Your task to perform on an android device: What's on my calendar tomorrow? Image 0: 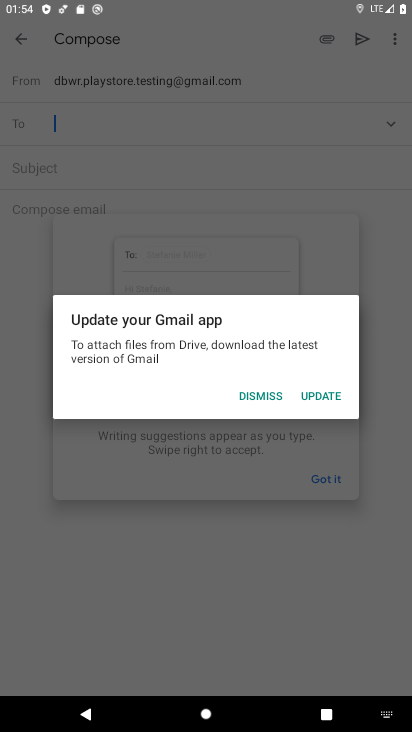
Step 0: press home button
Your task to perform on an android device: What's on my calendar tomorrow? Image 1: 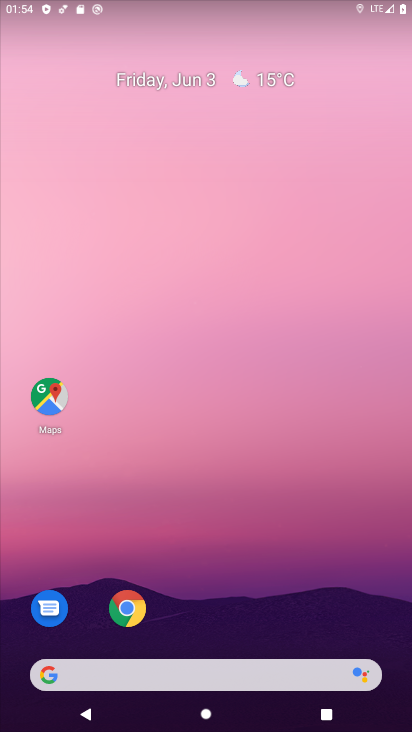
Step 1: drag from (256, 553) to (207, 127)
Your task to perform on an android device: What's on my calendar tomorrow? Image 2: 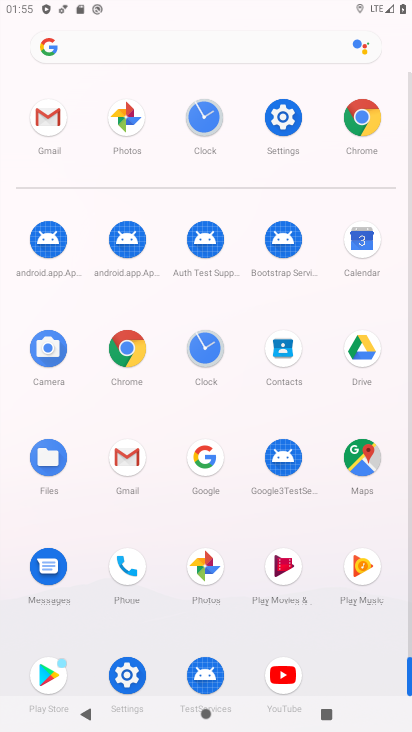
Step 2: click (364, 249)
Your task to perform on an android device: What's on my calendar tomorrow? Image 3: 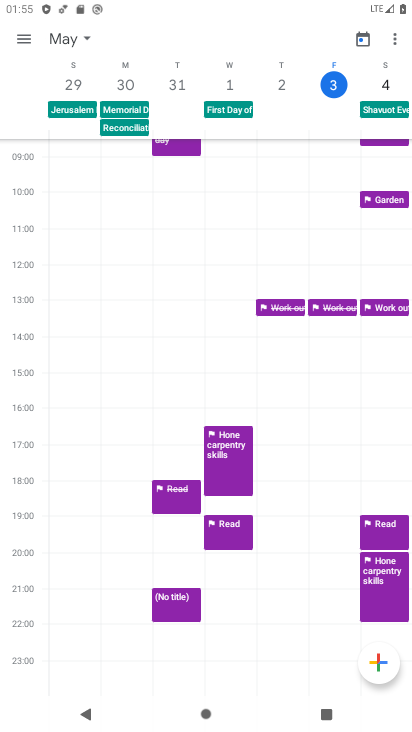
Step 3: click (396, 82)
Your task to perform on an android device: What's on my calendar tomorrow? Image 4: 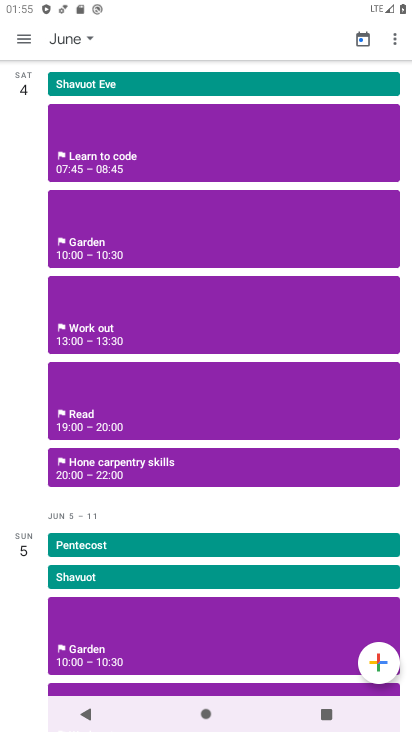
Step 4: task complete